Your task to perform on an android device: Is it going to rain today? Image 0: 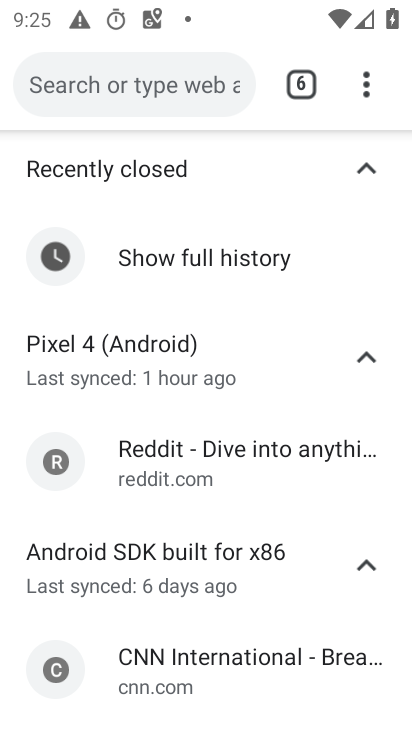
Step 0: press home button
Your task to perform on an android device: Is it going to rain today? Image 1: 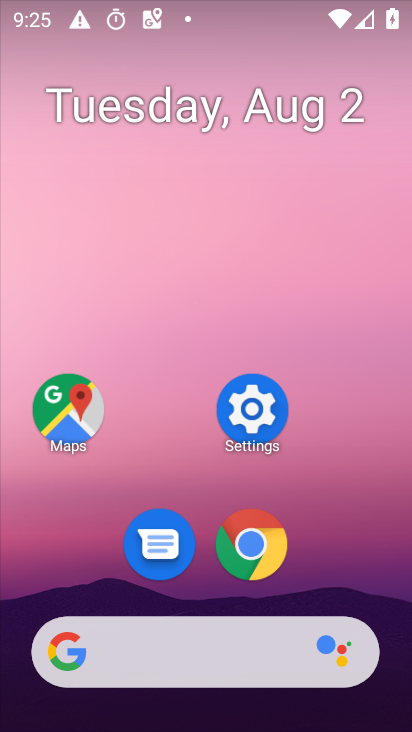
Step 1: click (134, 651)
Your task to perform on an android device: Is it going to rain today? Image 2: 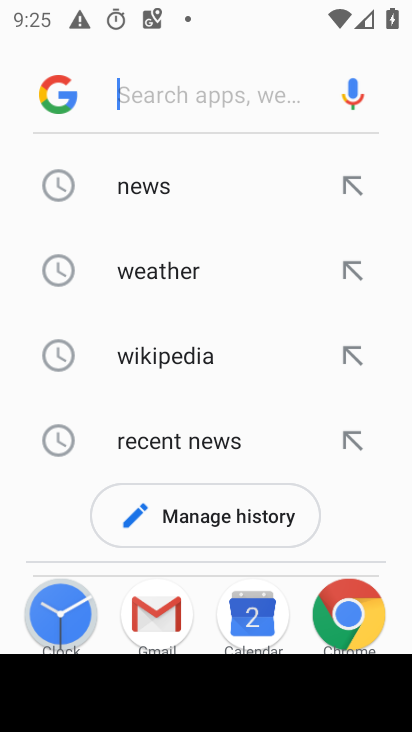
Step 2: click (190, 278)
Your task to perform on an android device: Is it going to rain today? Image 3: 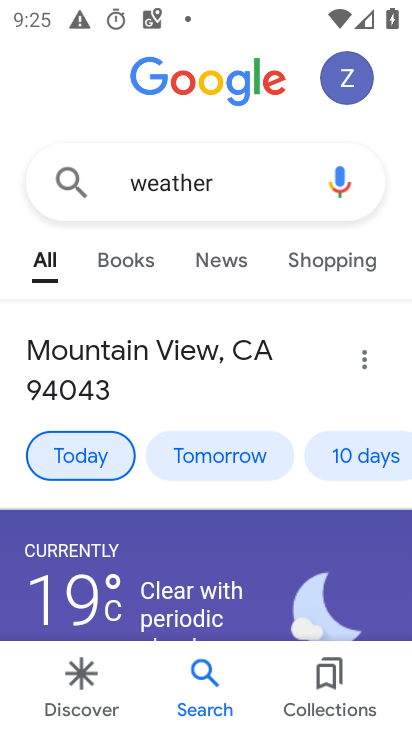
Step 3: task complete